Your task to perform on an android device: Go to notification settings Image 0: 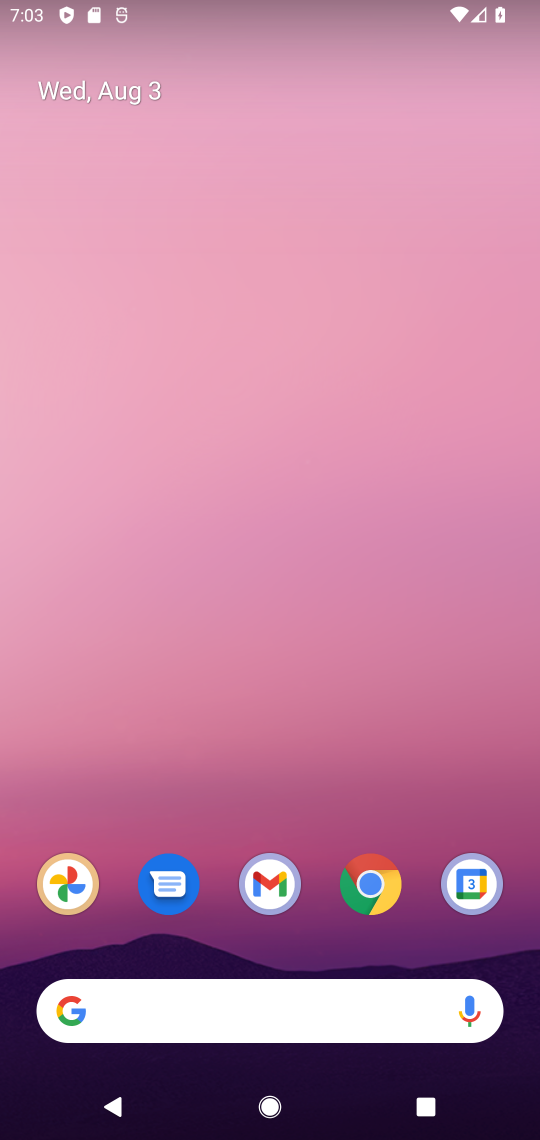
Step 0: drag from (303, 803) to (400, 291)
Your task to perform on an android device: Go to notification settings Image 1: 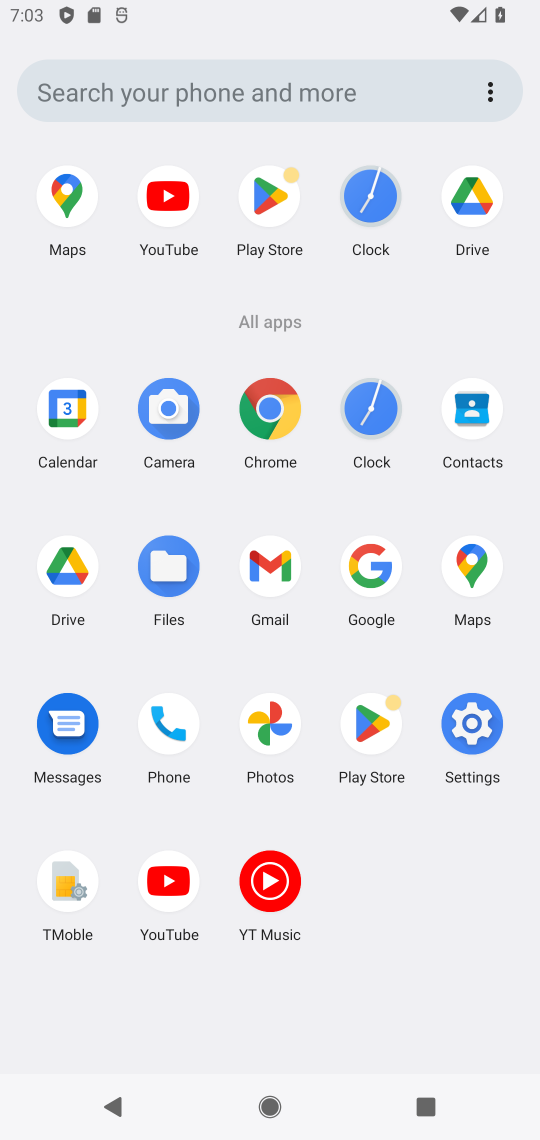
Step 1: click (473, 738)
Your task to perform on an android device: Go to notification settings Image 2: 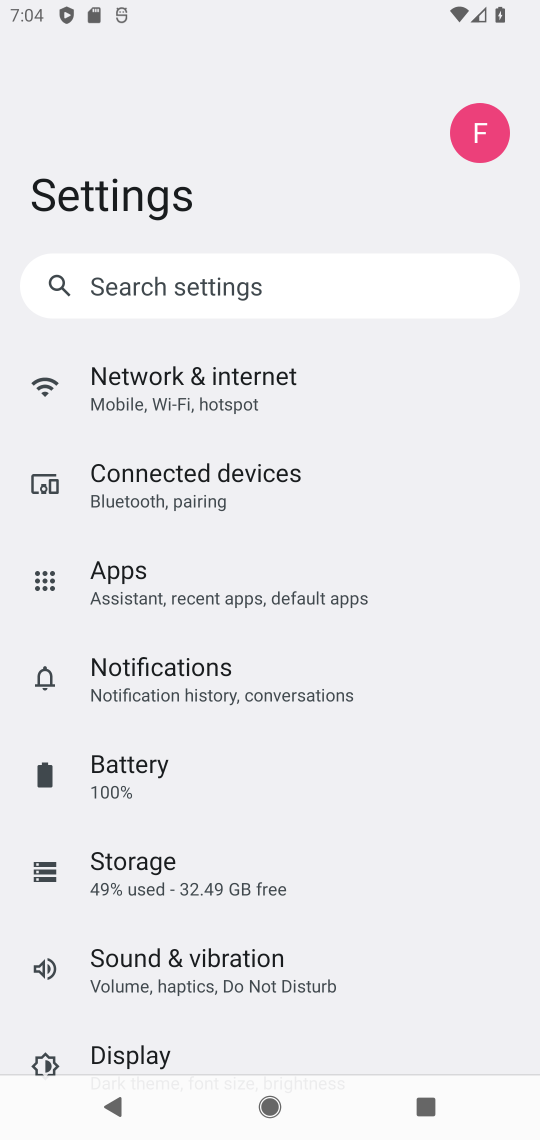
Step 2: click (228, 688)
Your task to perform on an android device: Go to notification settings Image 3: 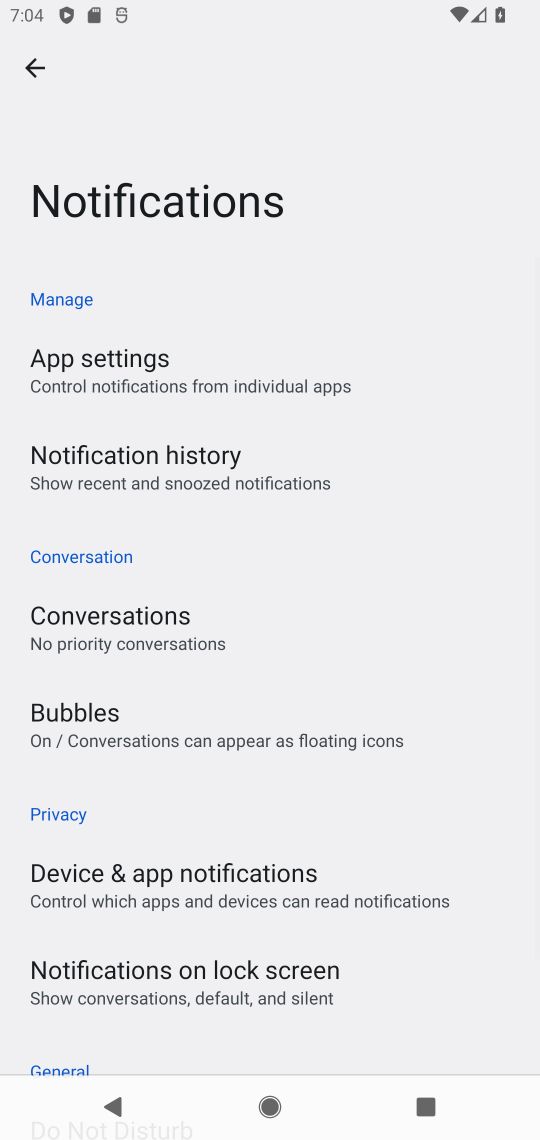
Step 3: task complete